Your task to perform on an android device: Open accessibility settings Image 0: 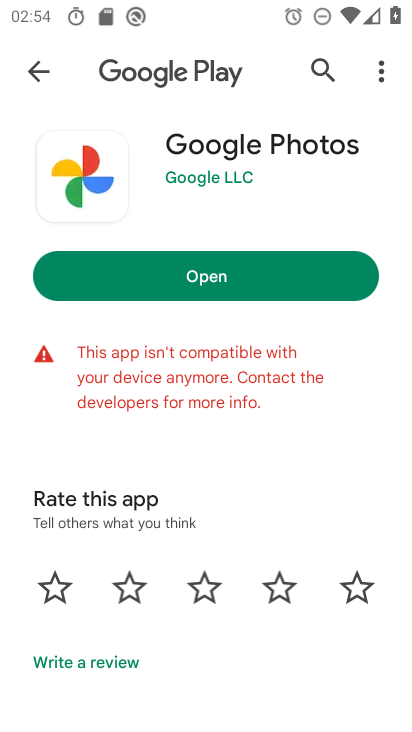
Step 0: press home button
Your task to perform on an android device: Open accessibility settings Image 1: 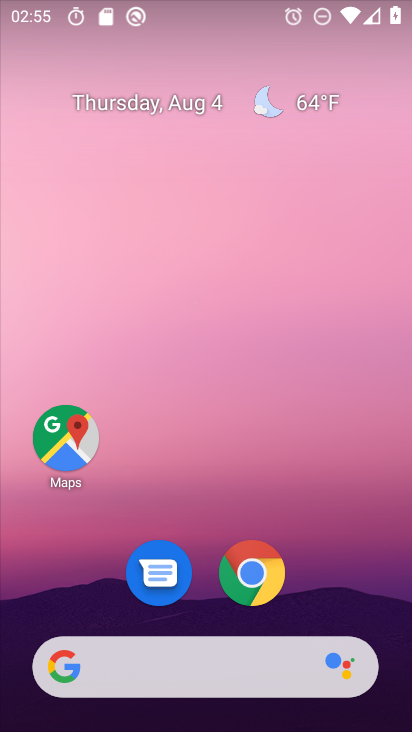
Step 1: drag from (333, 529) to (315, 106)
Your task to perform on an android device: Open accessibility settings Image 2: 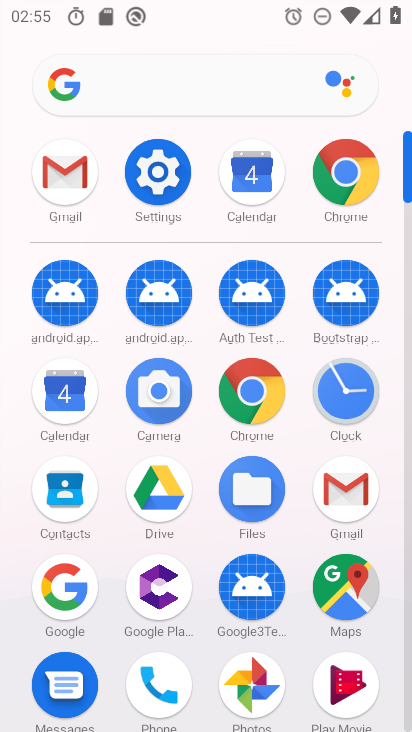
Step 2: click (180, 168)
Your task to perform on an android device: Open accessibility settings Image 3: 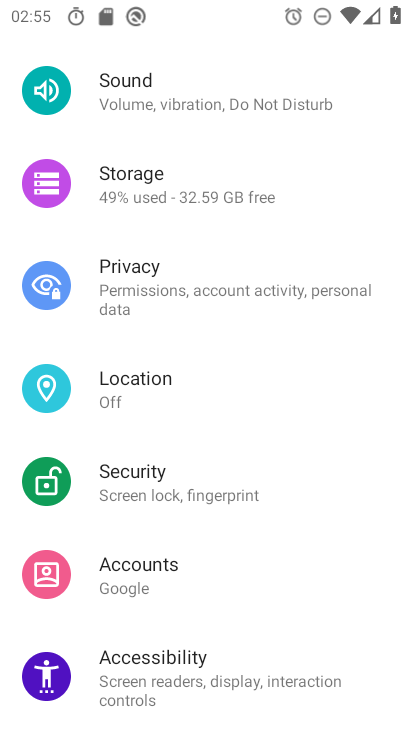
Step 3: drag from (242, 611) to (228, 205)
Your task to perform on an android device: Open accessibility settings Image 4: 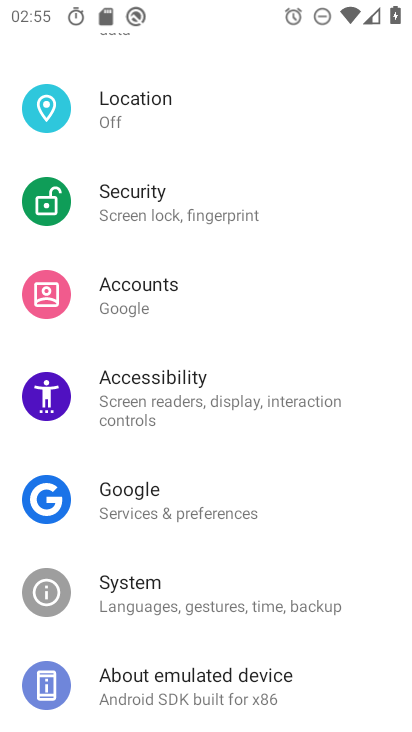
Step 4: click (148, 384)
Your task to perform on an android device: Open accessibility settings Image 5: 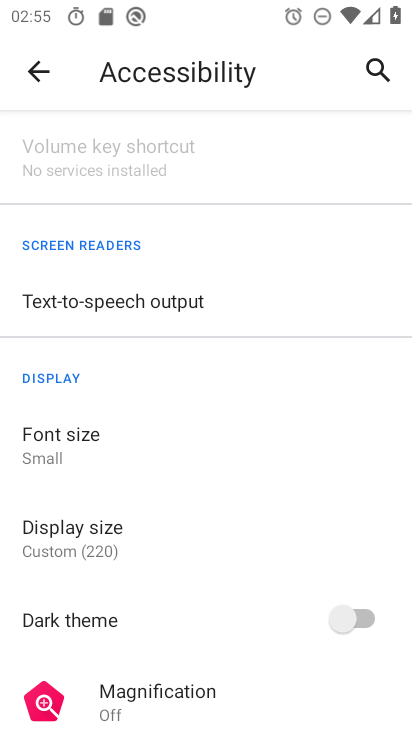
Step 5: task complete